Your task to perform on an android device: open app "VLC for Android" (install if not already installed), go to login, and select forgot password Image 0: 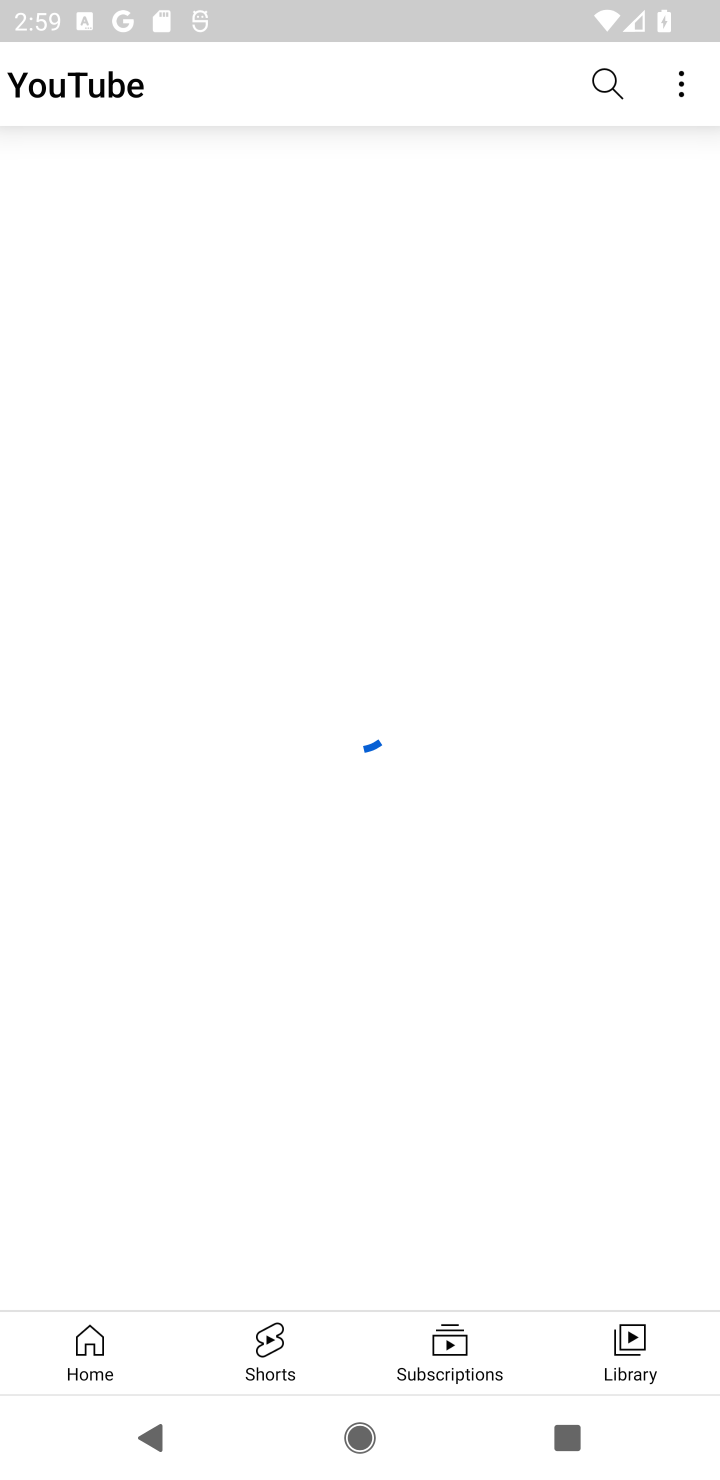
Step 0: press home button
Your task to perform on an android device: open app "VLC for Android" (install if not already installed), go to login, and select forgot password Image 1: 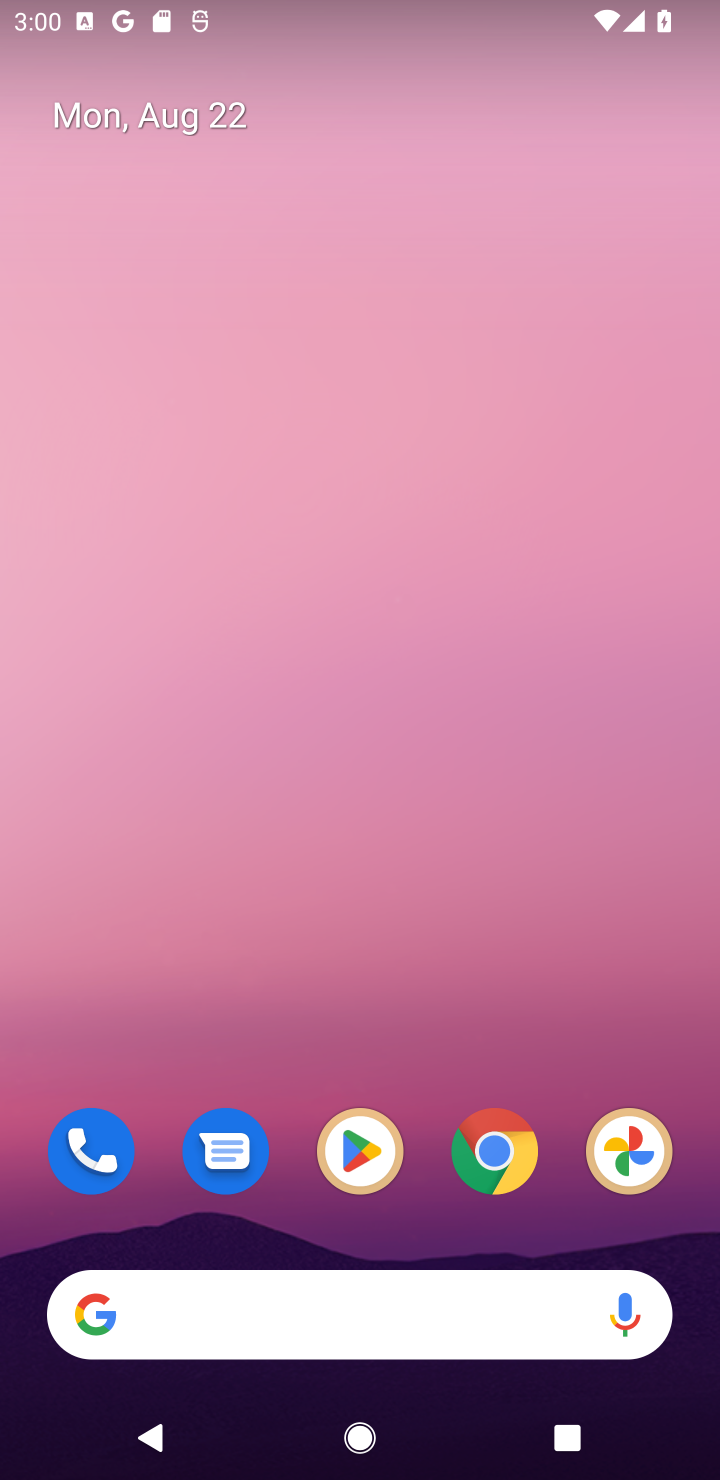
Step 1: click (346, 1137)
Your task to perform on an android device: open app "VLC for Android" (install if not already installed), go to login, and select forgot password Image 2: 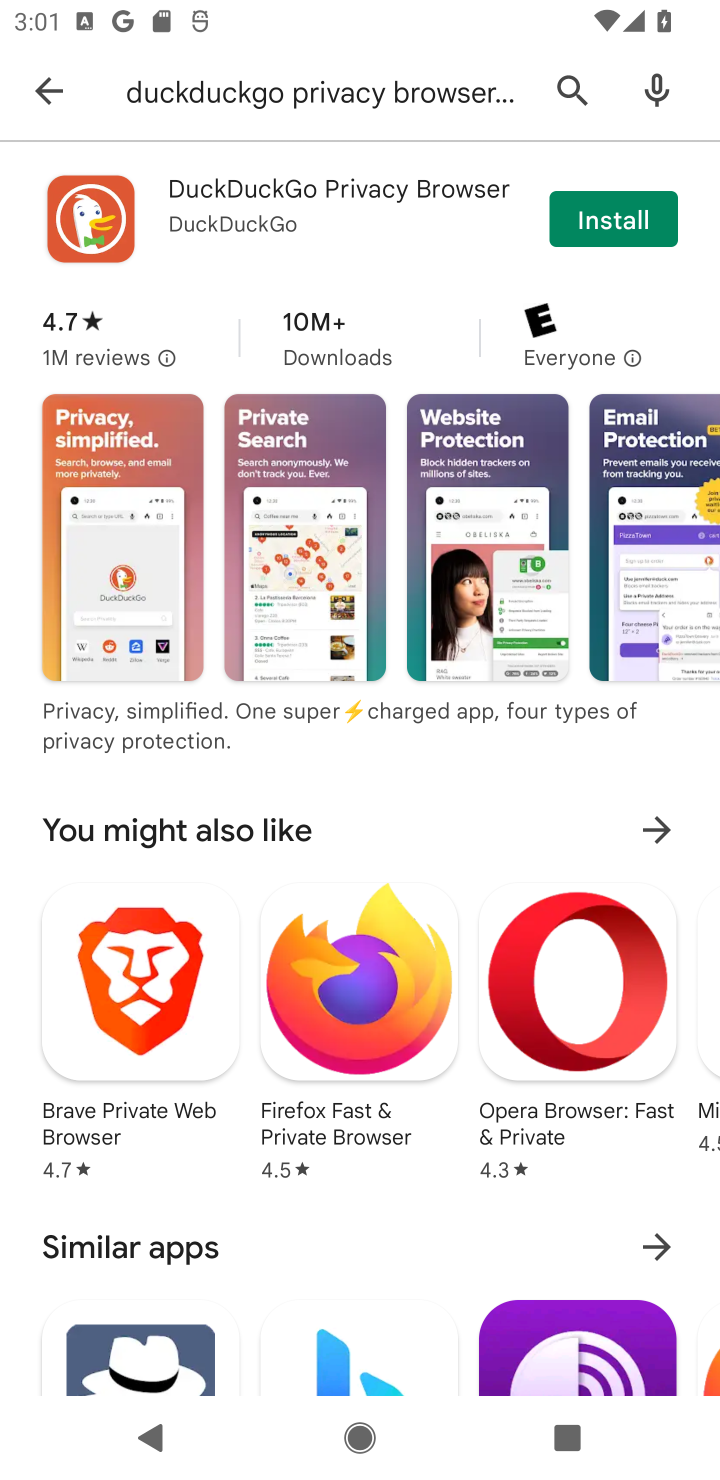
Step 2: click (574, 88)
Your task to perform on an android device: open app "VLC for Android" (install if not already installed), go to login, and select forgot password Image 3: 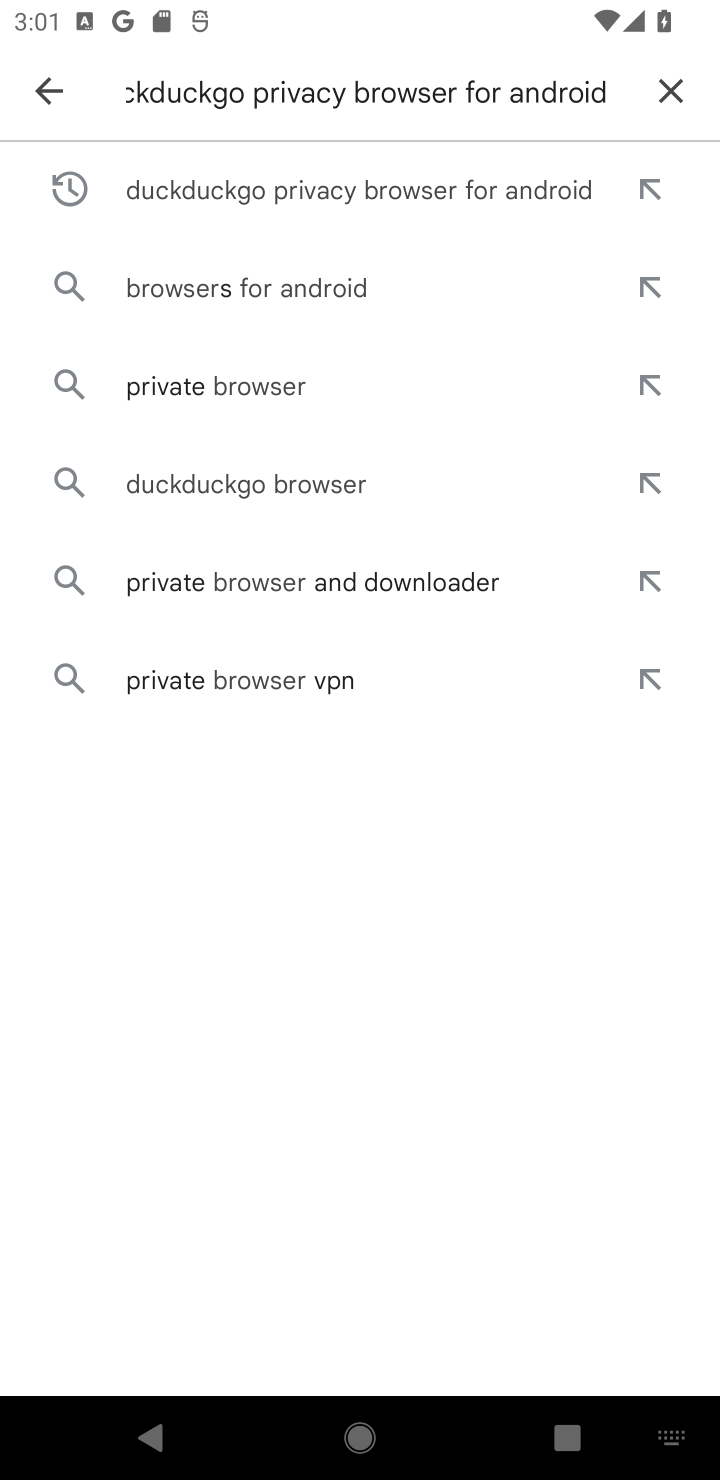
Step 3: click (666, 79)
Your task to perform on an android device: open app "VLC for Android" (install if not already installed), go to login, and select forgot password Image 4: 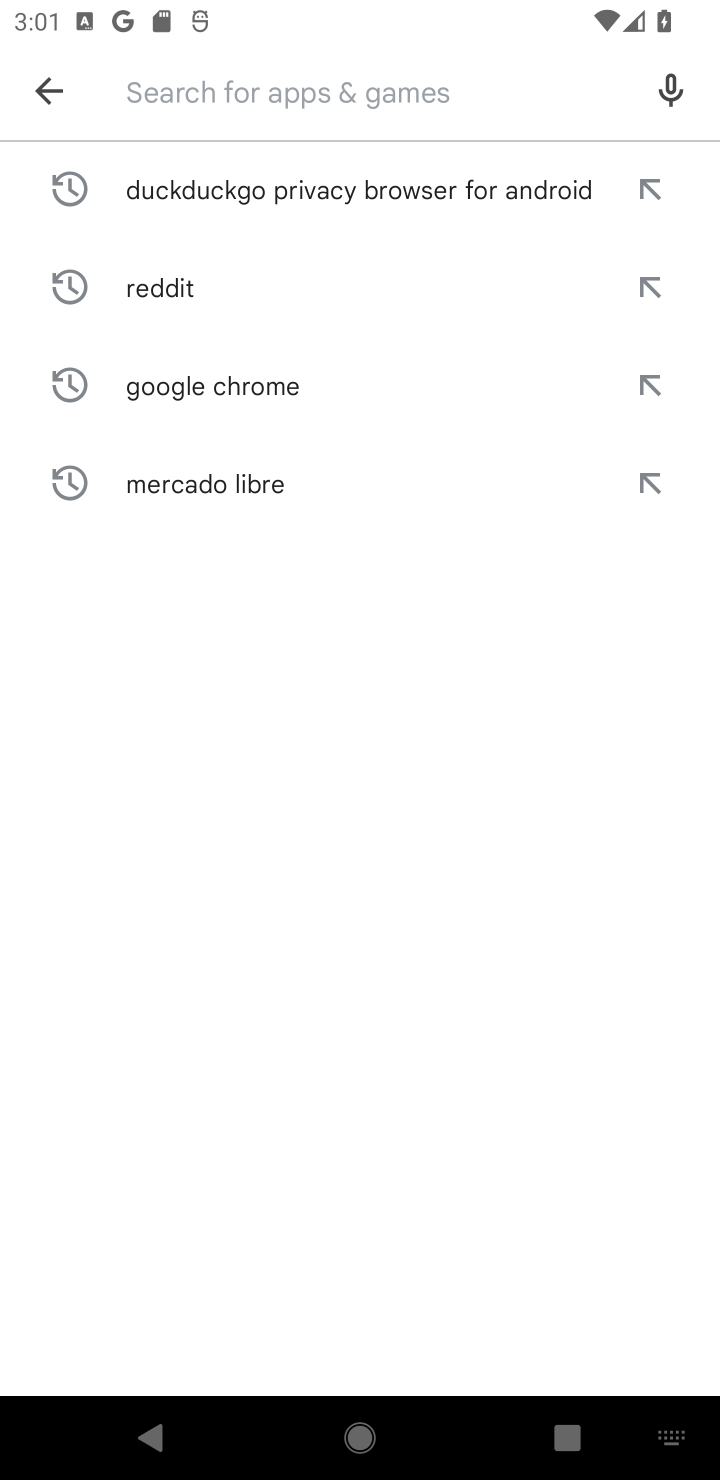
Step 4: type "VLC for Android"
Your task to perform on an android device: open app "VLC for Android" (install if not already installed), go to login, and select forgot password Image 5: 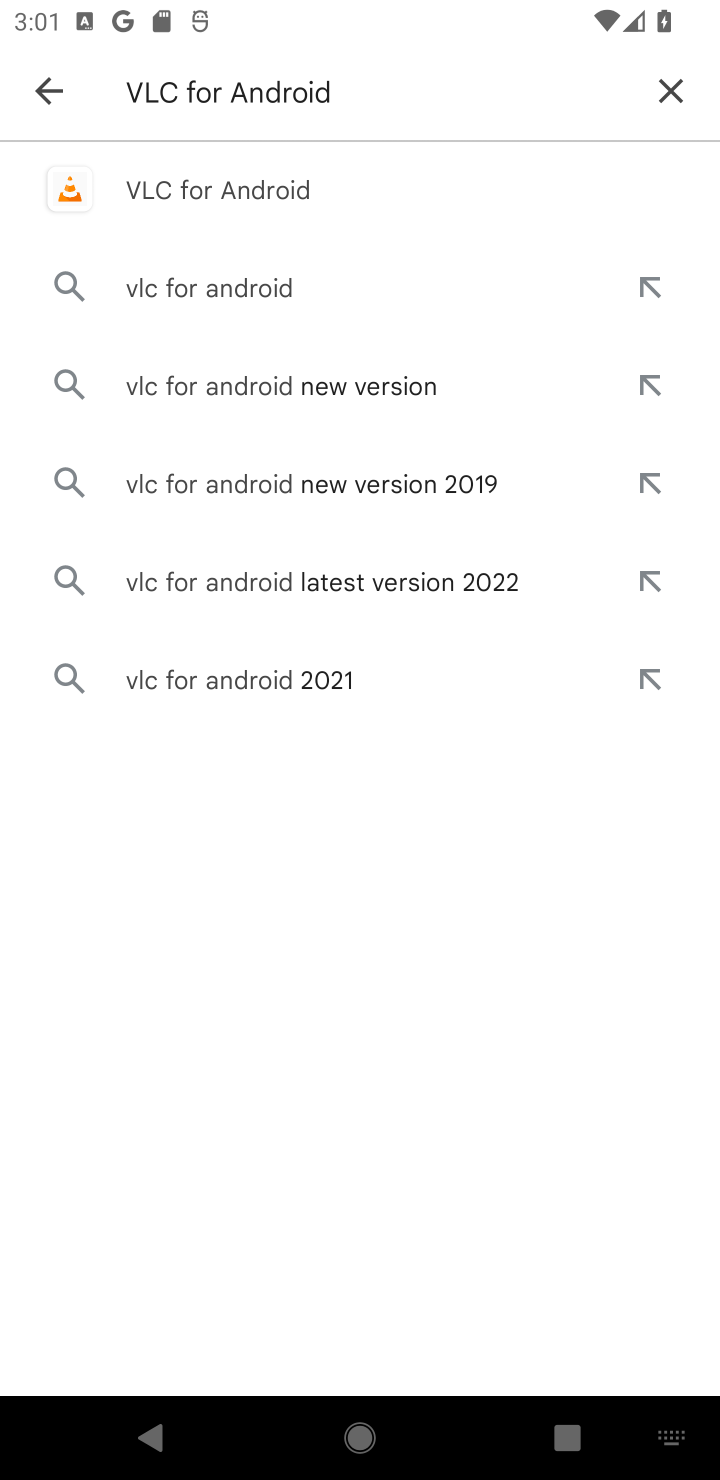
Step 5: click (256, 188)
Your task to perform on an android device: open app "VLC for Android" (install if not already installed), go to login, and select forgot password Image 6: 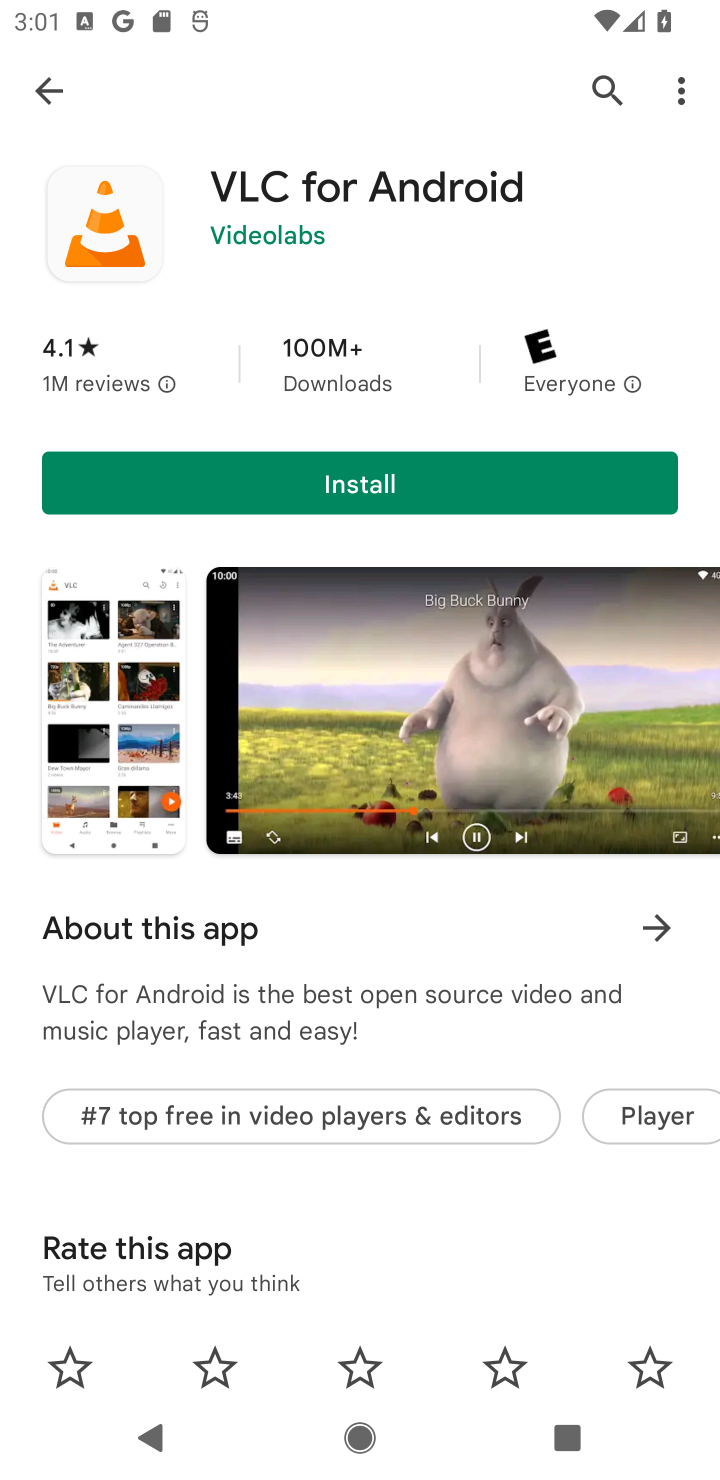
Step 6: click (356, 488)
Your task to perform on an android device: open app "VLC for Android" (install if not already installed), go to login, and select forgot password Image 7: 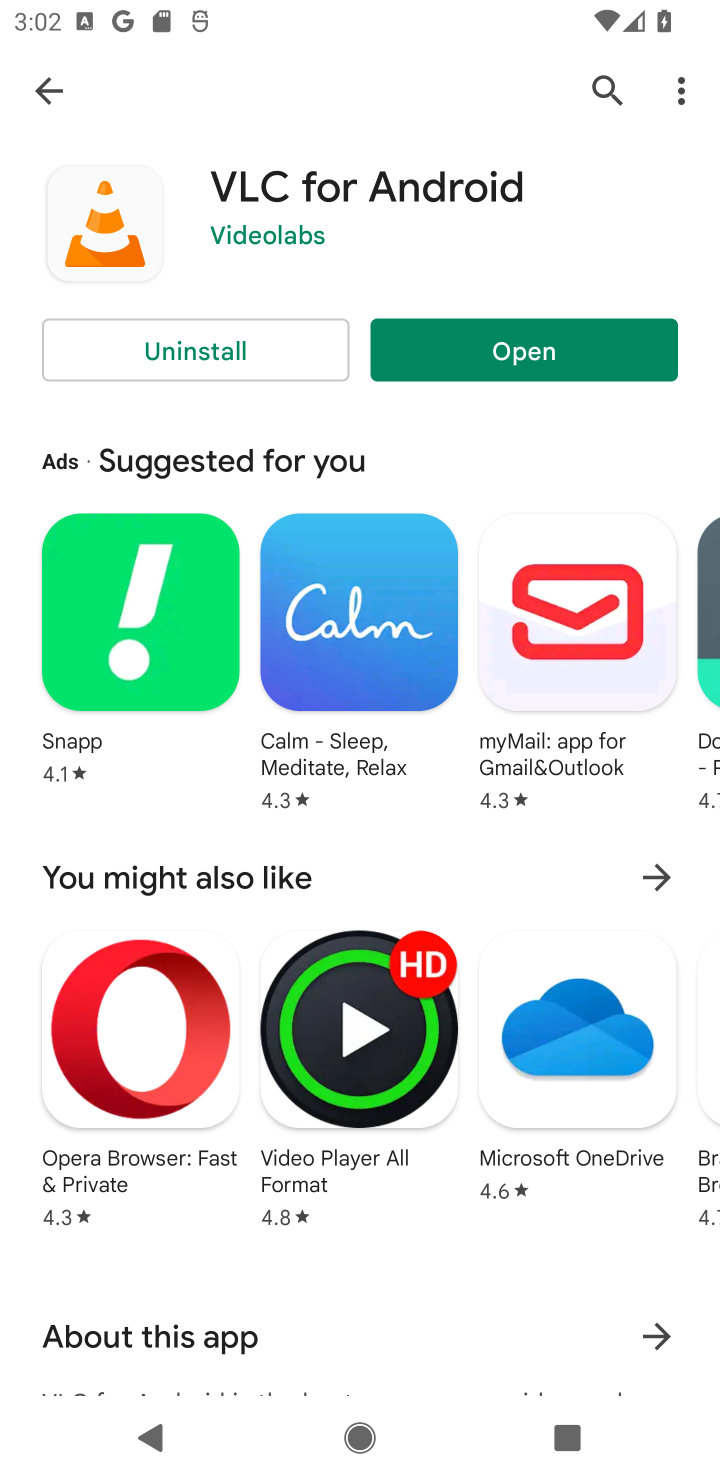
Step 7: click (561, 339)
Your task to perform on an android device: open app "VLC for Android" (install if not already installed), go to login, and select forgot password Image 8: 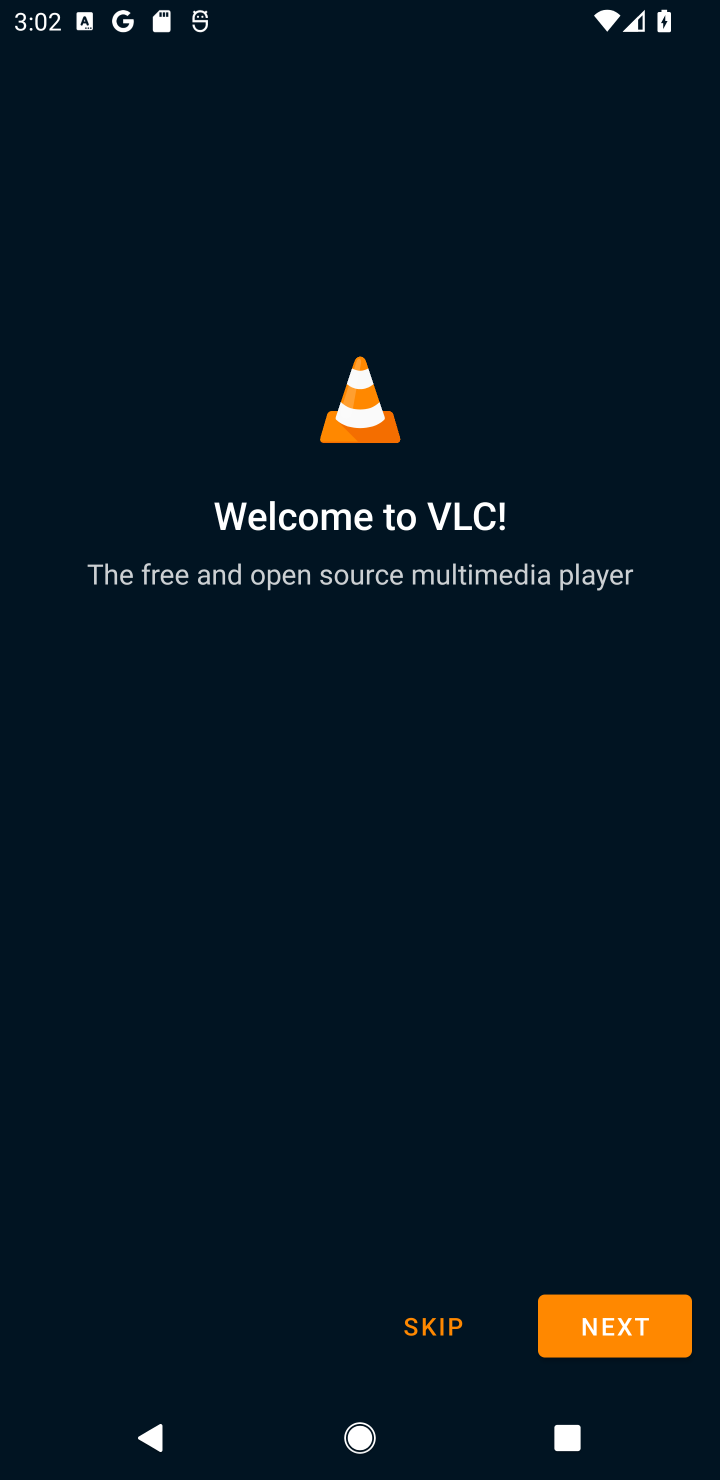
Step 8: click (593, 1328)
Your task to perform on an android device: open app "VLC for Android" (install if not already installed), go to login, and select forgot password Image 9: 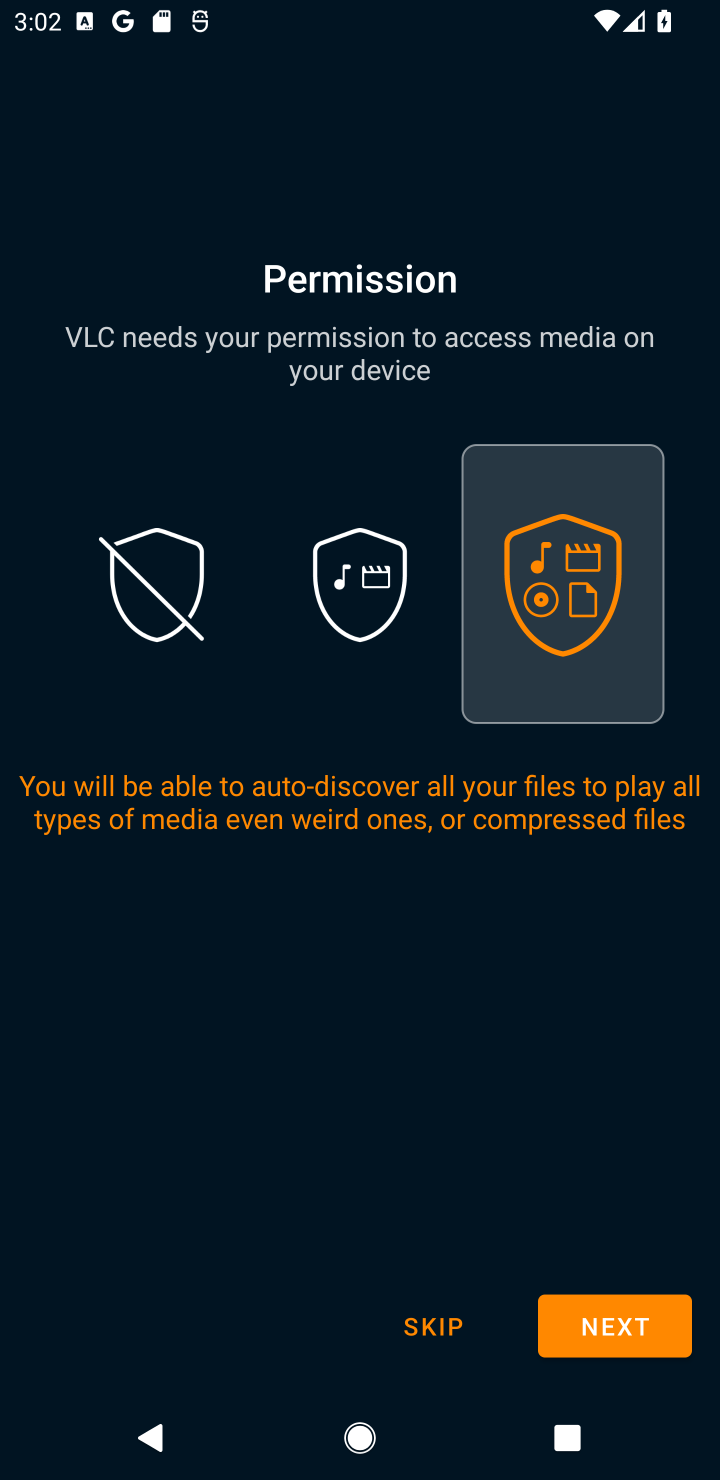
Step 9: click (593, 1328)
Your task to perform on an android device: open app "VLC for Android" (install if not already installed), go to login, and select forgot password Image 10: 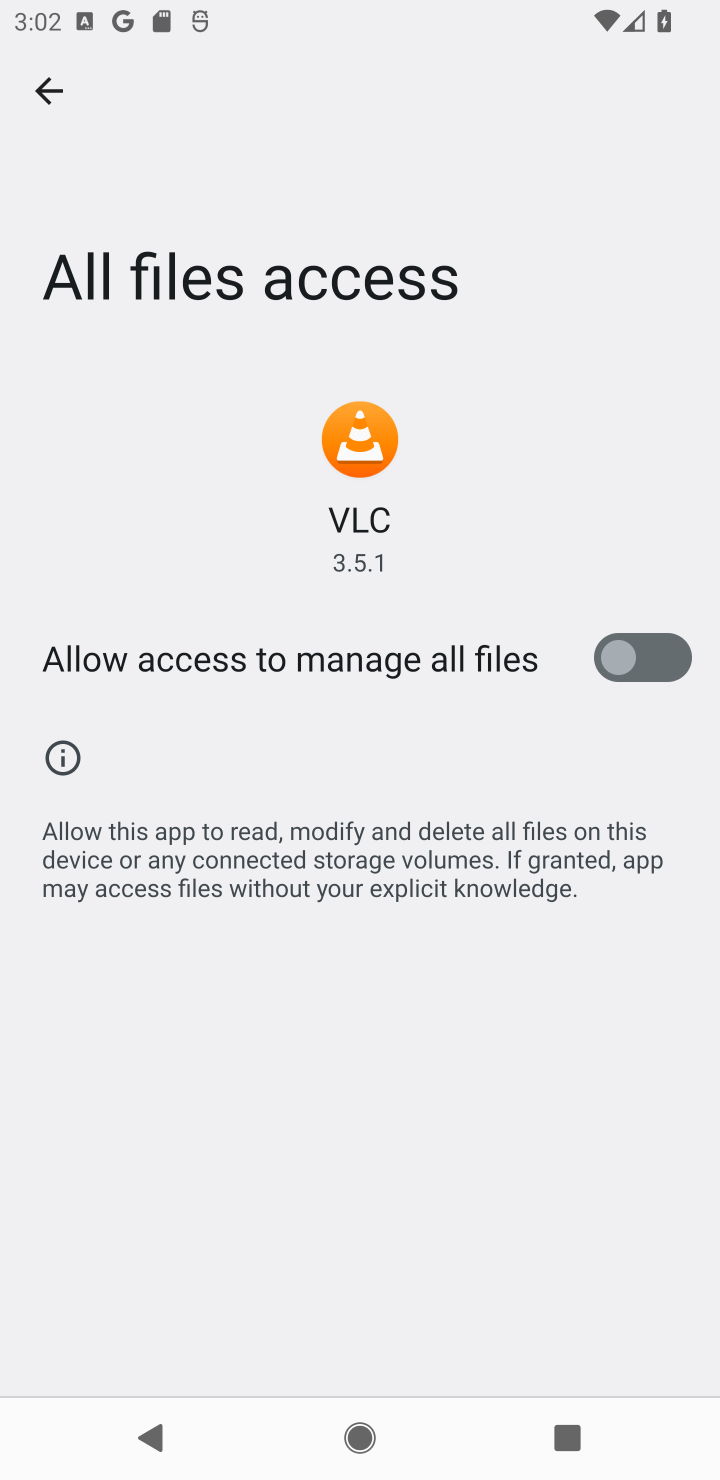
Step 10: task complete